Your task to perform on an android device: Add razer huntsman to the cart on bestbuy Image 0: 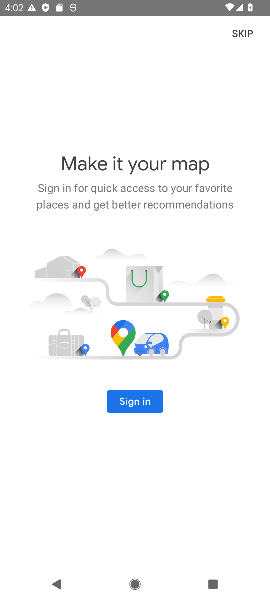
Step 0: press home button
Your task to perform on an android device: Add razer huntsman to the cart on bestbuy Image 1: 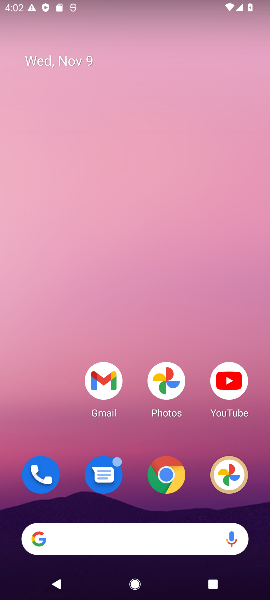
Step 1: drag from (125, 480) to (102, 49)
Your task to perform on an android device: Add razer huntsman to the cart on bestbuy Image 2: 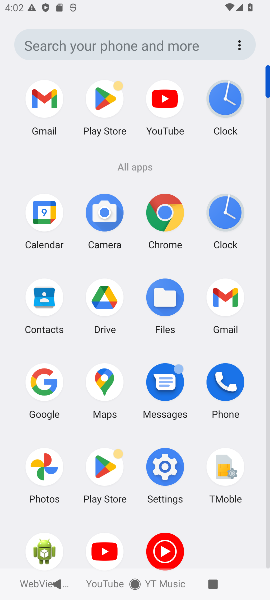
Step 2: click (170, 199)
Your task to perform on an android device: Add razer huntsman to the cart on bestbuy Image 3: 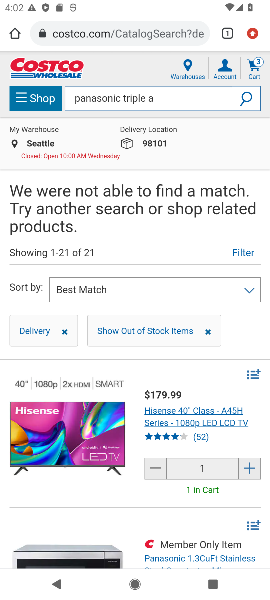
Step 3: click (140, 37)
Your task to perform on an android device: Add razer huntsman to the cart on bestbuy Image 4: 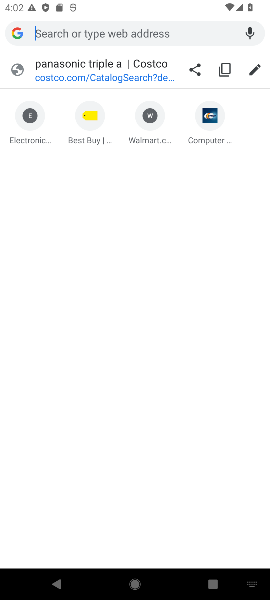
Step 4: type "bestbuy"
Your task to perform on an android device: Add razer huntsman to the cart on bestbuy Image 5: 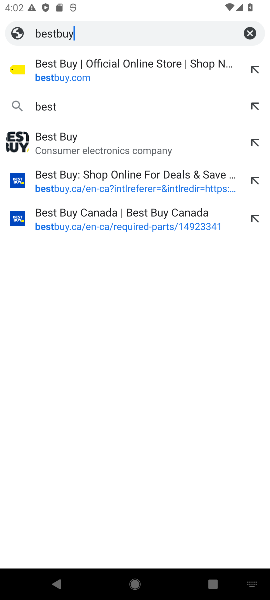
Step 5: press enter
Your task to perform on an android device: Add razer huntsman to the cart on bestbuy Image 6: 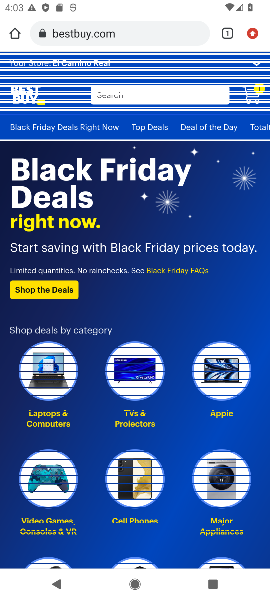
Step 6: click (136, 96)
Your task to perform on an android device: Add razer huntsman to the cart on bestbuy Image 7: 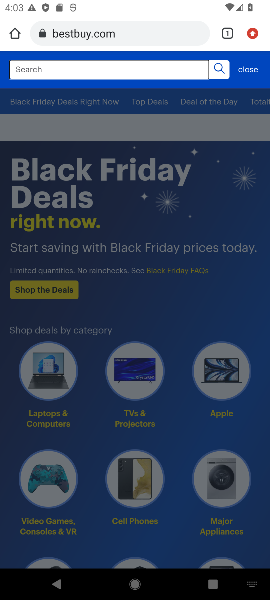
Step 7: click (147, 67)
Your task to perform on an android device: Add razer huntsman to the cart on bestbuy Image 8: 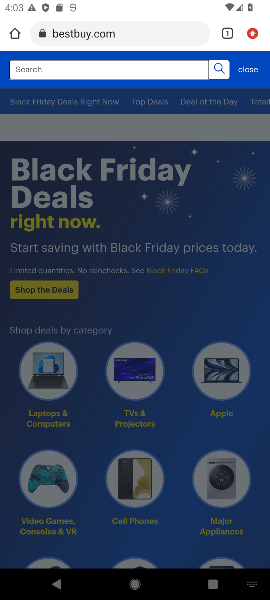
Step 8: type " razer huntsman "
Your task to perform on an android device: Add razer huntsman to the cart on bestbuy Image 9: 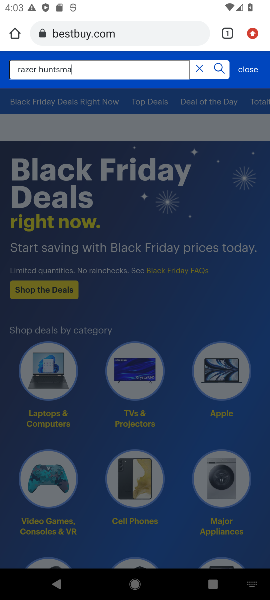
Step 9: press enter
Your task to perform on an android device: Add razer huntsman to the cart on bestbuy Image 10: 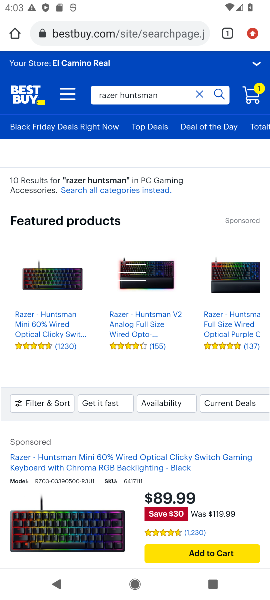
Step 10: drag from (175, 476) to (170, 265)
Your task to perform on an android device: Add razer huntsman to the cart on bestbuy Image 11: 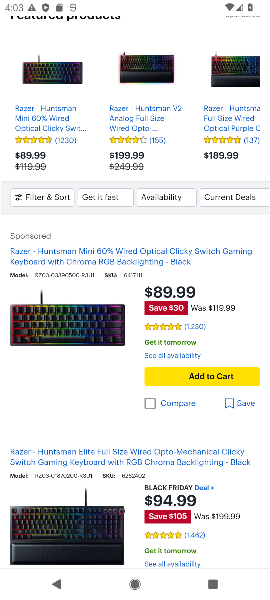
Step 11: click (210, 375)
Your task to perform on an android device: Add razer huntsman to the cart on bestbuy Image 12: 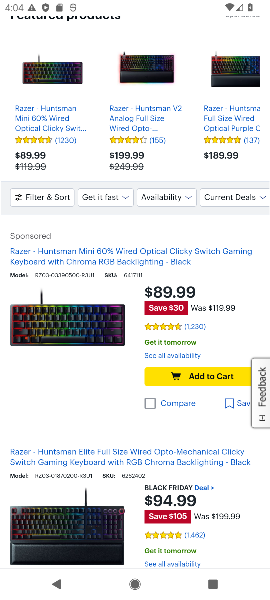
Step 12: click (204, 372)
Your task to perform on an android device: Add razer huntsman to the cart on bestbuy Image 13: 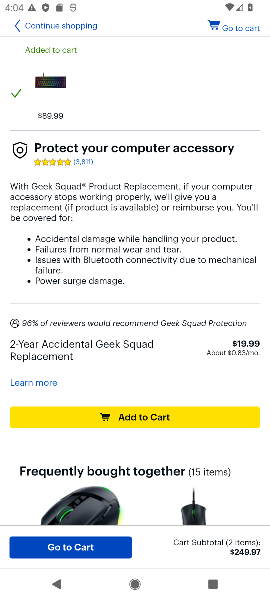
Step 13: task complete